Your task to perform on an android device: Open privacy settings Image 0: 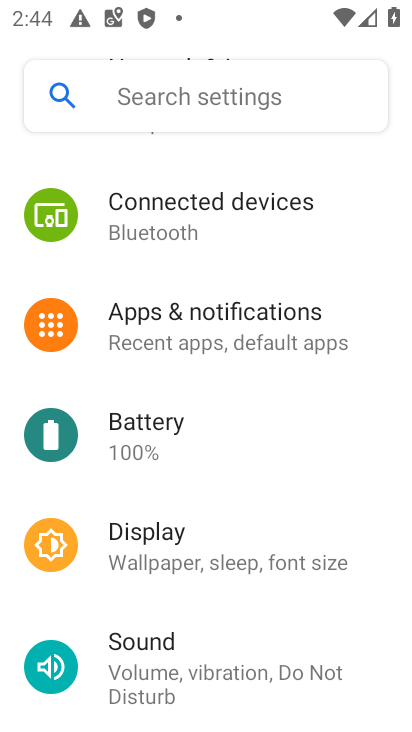
Step 0: drag from (215, 618) to (215, 354)
Your task to perform on an android device: Open privacy settings Image 1: 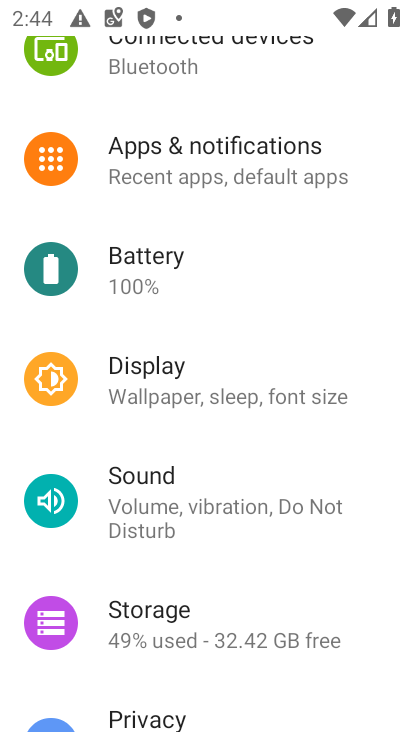
Step 1: click (150, 720)
Your task to perform on an android device: Open privacy settings Image 2: 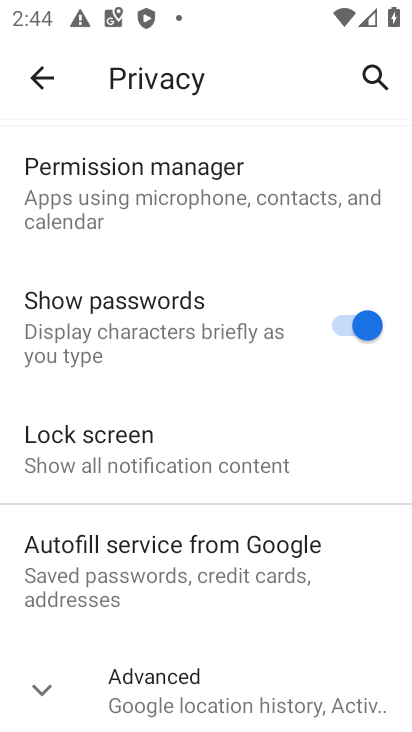
Step 2: task complete